Your task to perform on an android device: Search for vegetarian restaurants on Maps Image 0: 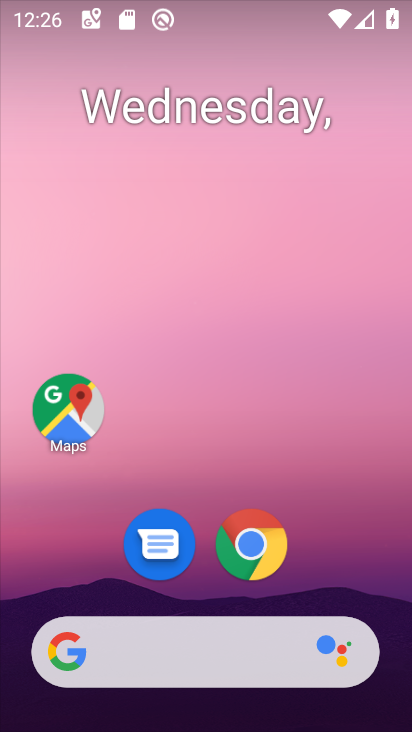
Step 0: drag from (228, 536) to (213, 380)
Your task to perform on an android device: Search for vegetarian restaurants on Maps Image 1: 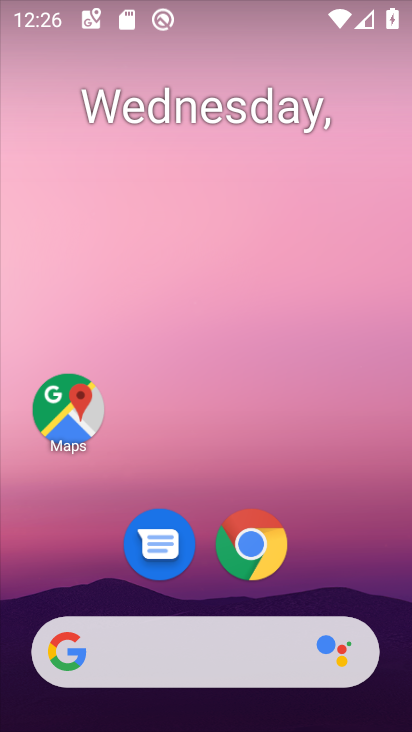
Step 1: drag from (203, 497) to (219, 133)
Your task to perform on an android device: Search for vegetarian restaurants on Maps Image 2: 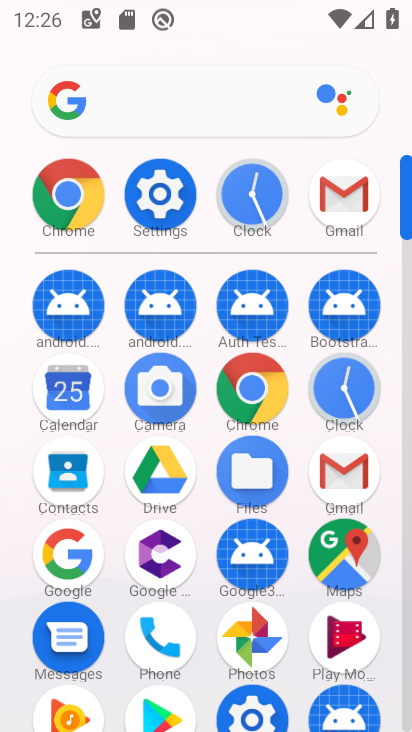
Step 2: click (318, 562)
Your task to perform on an android device: Search for vegetarian restaurants on Maps Image 3: 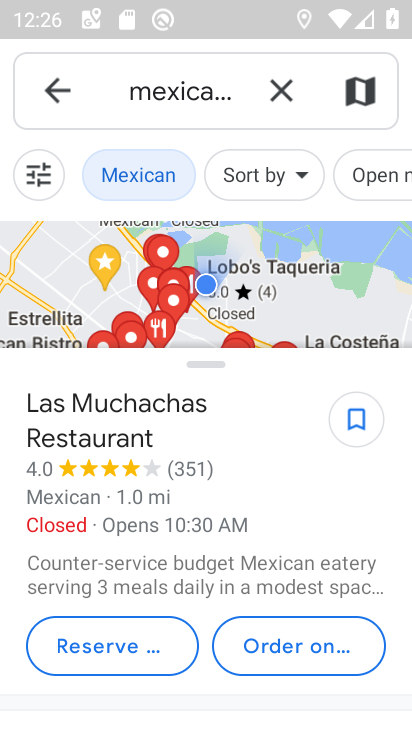
Step 3: click (294, 101)
Your task to perform on an android device: Search for vegetarian restaurants on Maps Image 4: 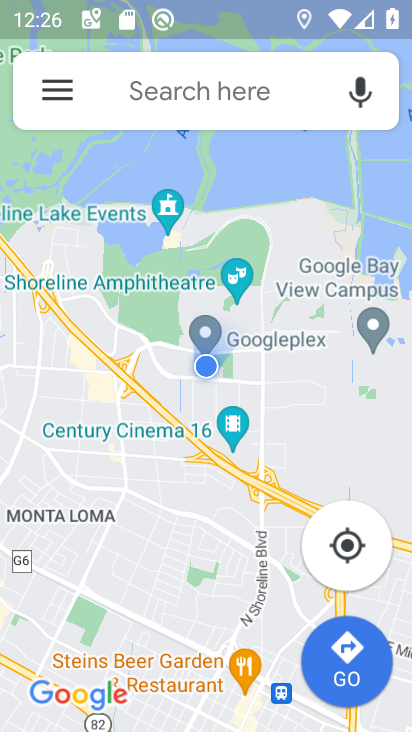
Step 4: click (227, 100)
Your task to perform on an android device: Search for vegetarian restaurants on Maps Image 5: 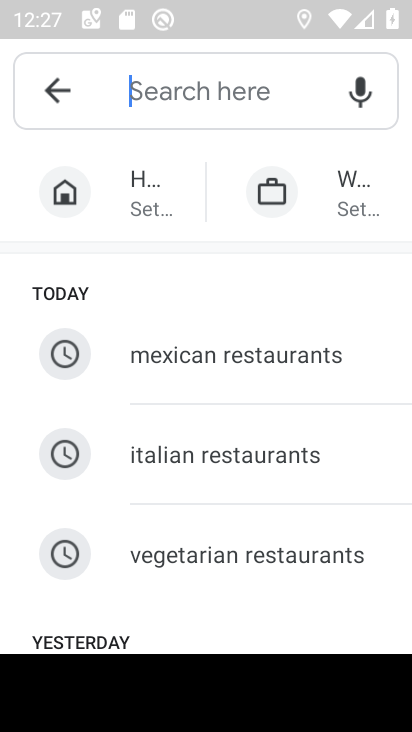
Step 5: type "vegetarian restaurants"
Your task to perform on an android device: Search for vegetarian restaurants on Maps Image 6: 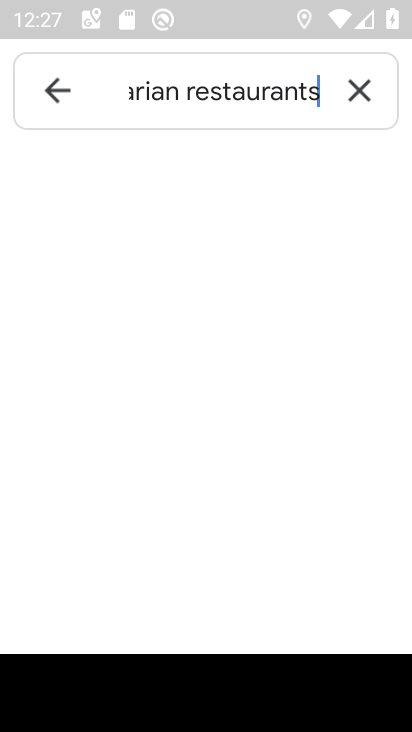
Step 6: type ""
Your task to perform on an android device: Search for vegetarian restaurants on Maps Image 7: 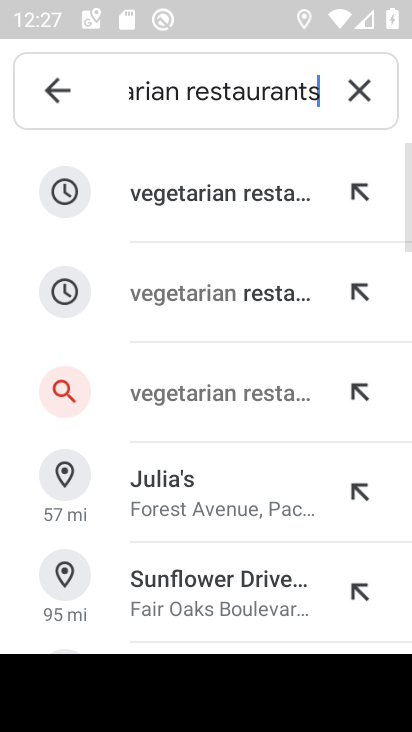
Step 7: click (242, 201)
Your task to perform on an android device: Search for vegetarian restaurants on Maps Image 8: 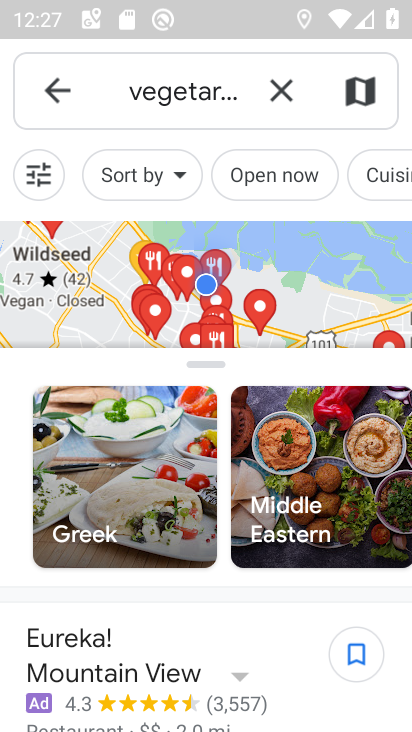
Step 8: task complete